Your task to perform on an android device: Open Maps and search for coffee Image 0: 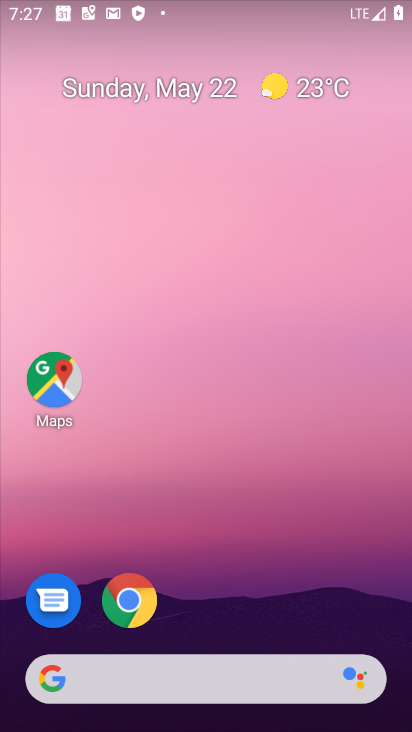
Step 0: drag from (345, 631) to (263, 17)
Your task to perform on an android device: Open Maps and search for coffee Image 1: 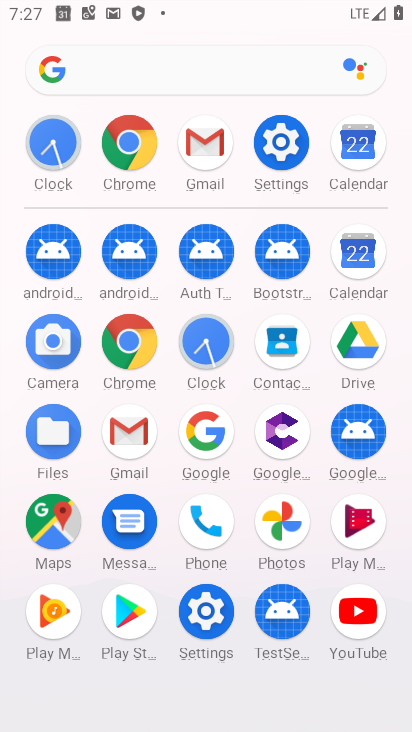
Step 1: click (67, 532)
Your task to perform on an android device: Open Maps and search for coffee Image 2: 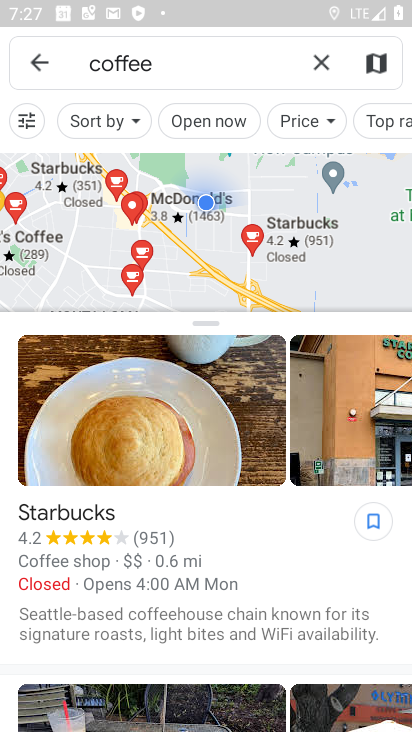
Step 2: task complete